Your task to perform on an android device: toggle priority inbox in the gmail app Image 0: 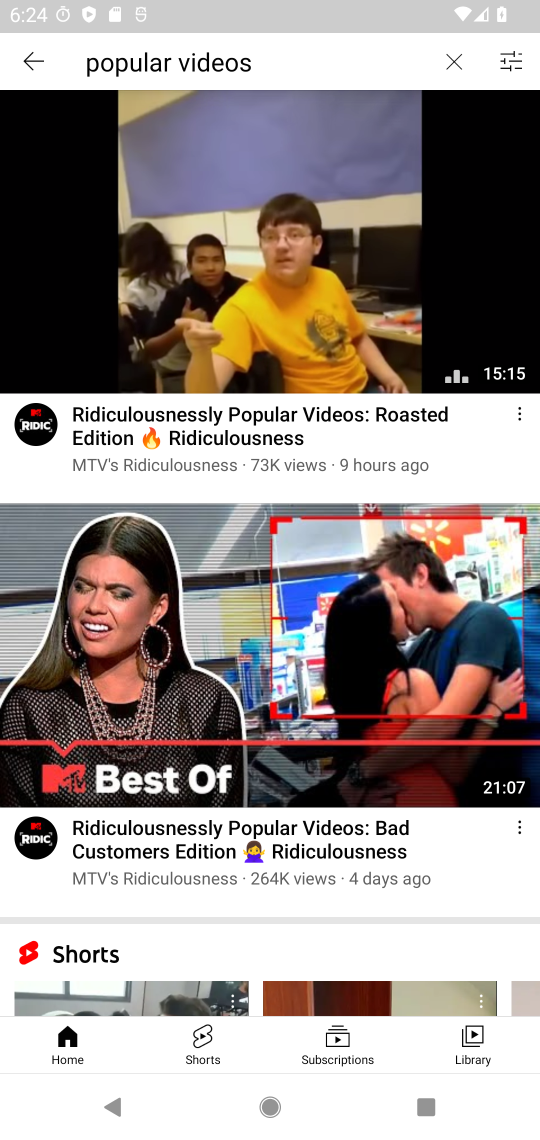
Step 0: press home button
Your task to perform on an android device: toggle priority inbox in the gmail app Image 1: 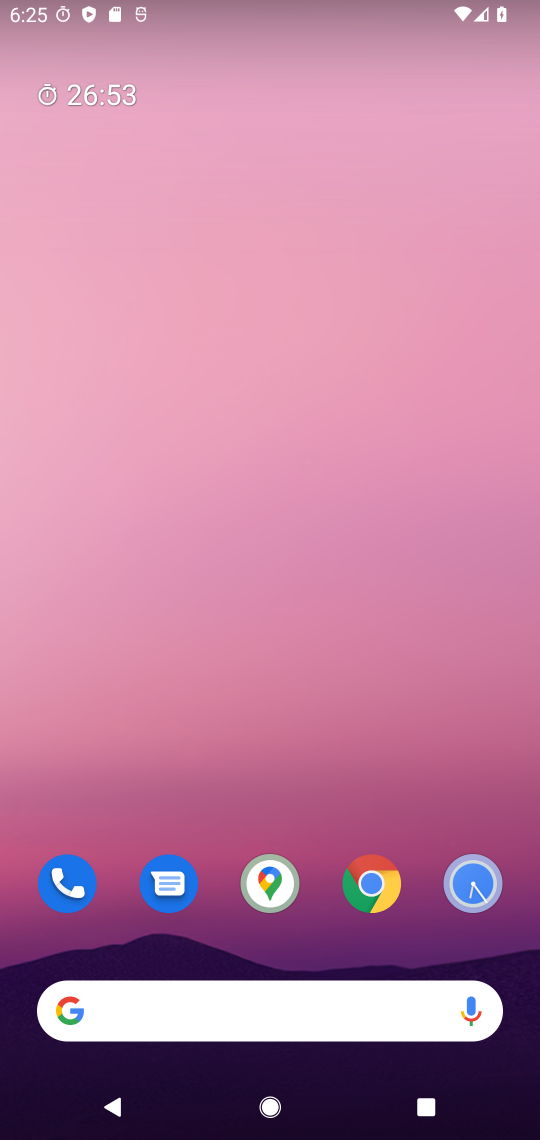
Step 1: drag from (312, 833) to (327, 168)
Your task to perform on an android device: toggle priority inbox in the gmail app Image 2: 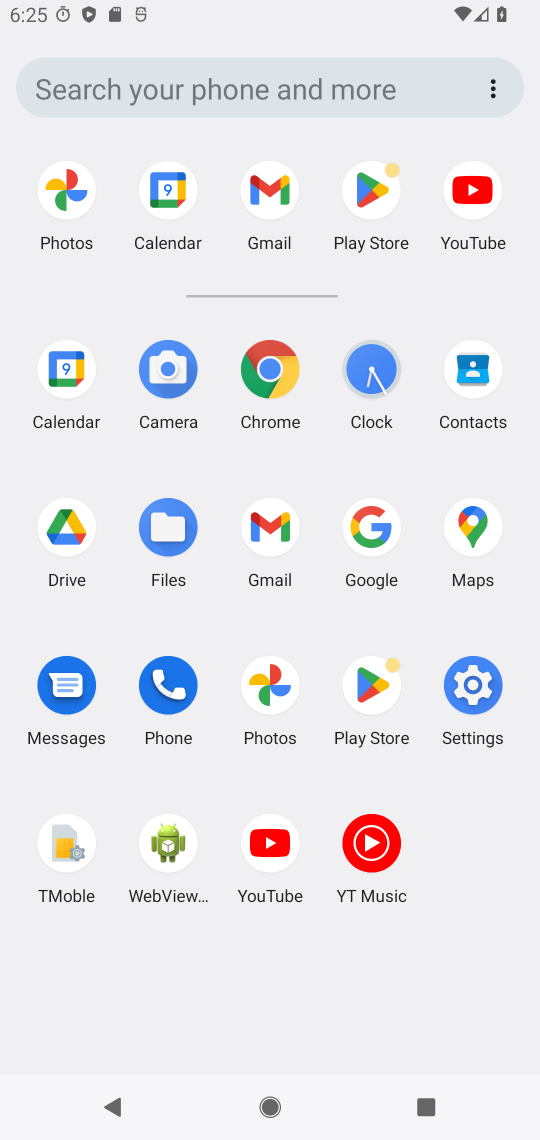
Step 2: click (270, 561)
Your task to perform on an android device: toggle priority inbox in the gmail app Image 3: 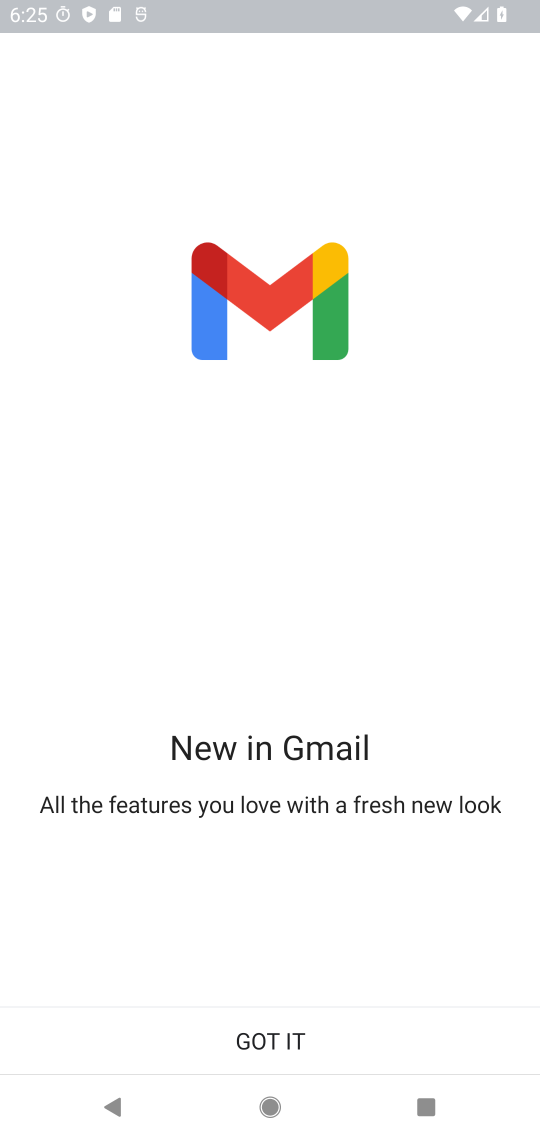
Step 3: click (299, 1019)
Your task to perform on an android device: toggle priority inbox in the gmail app Image 4: 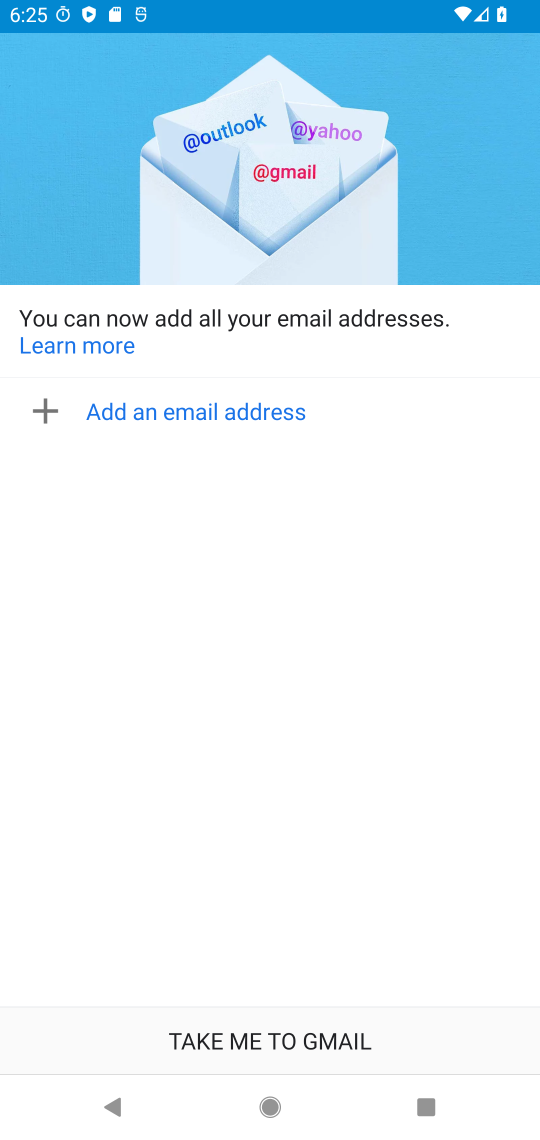
Step 4: click (329, 1020)
Your task to perform on an android device: toggle priority inbox in the gmail app Image 5: 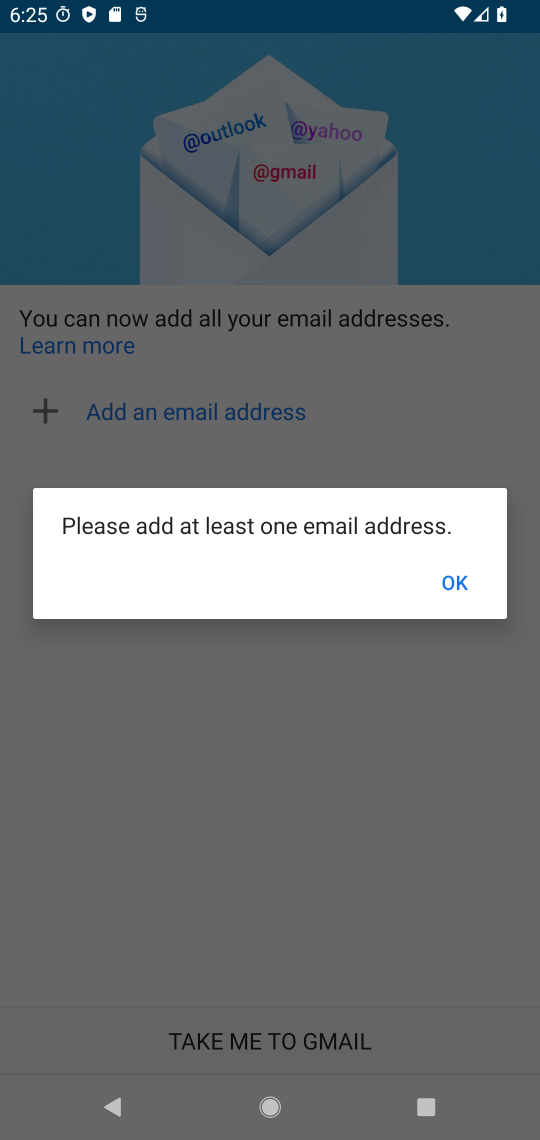
Step 5: task complete